Your task to perform on an android device: Open Maps and search for coffee Image 0: 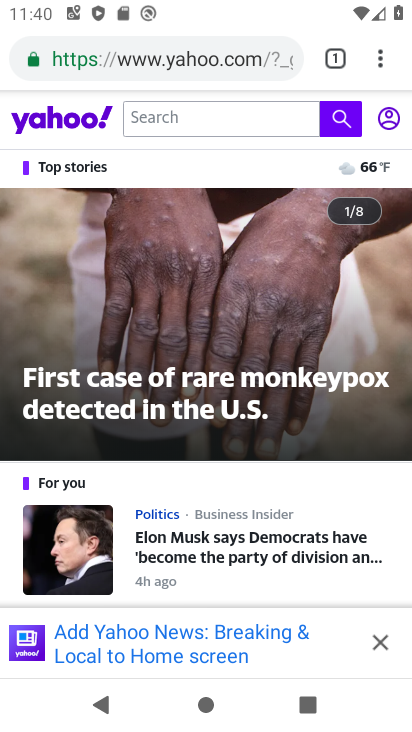
Step 0: press home button
Your task to perform on an android device: Open Maps and search for coffee Image 1: 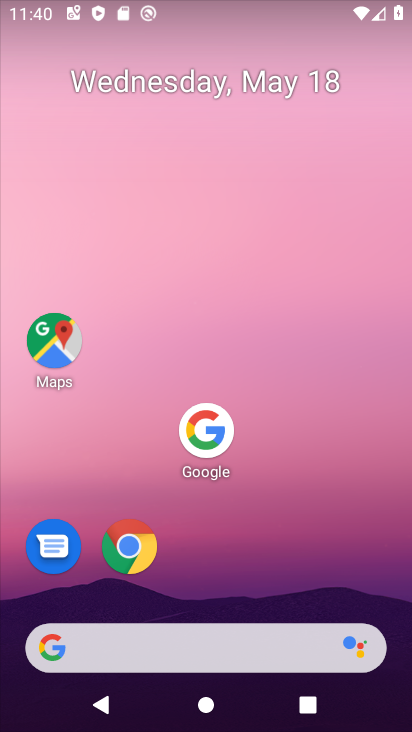
Step 1: click (50, 351)
Your task to perform on an android device: Open Maps and search for coffee Image 2: 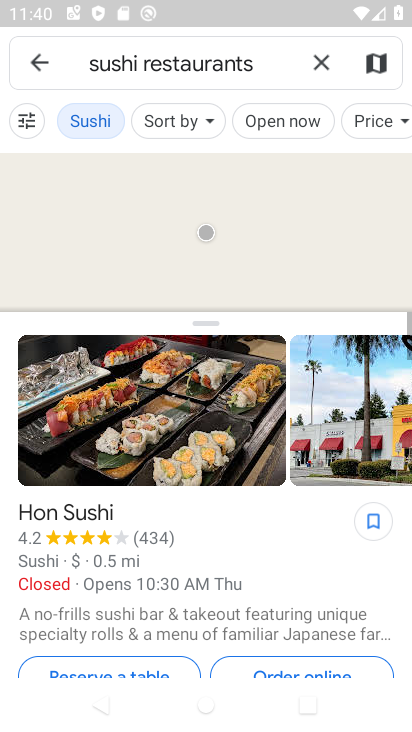
Step 2: click (318, 56)
Your task to perform on an android device: Open Maps and search for coffee Image 3: 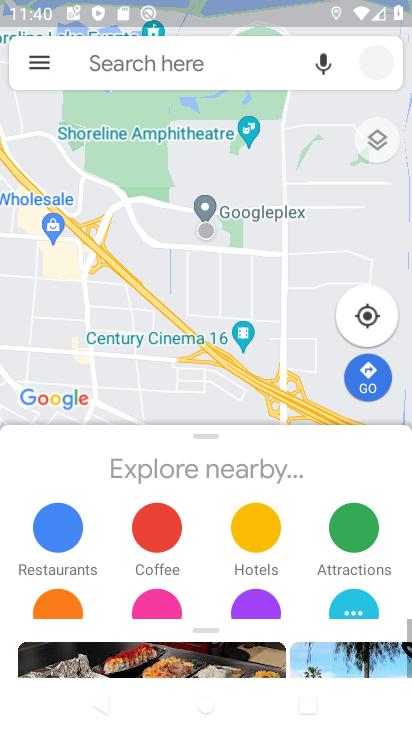
Step 3: click (134, 71)
Your task to perform on an android device: Open Maps and search for coffee Image 4: 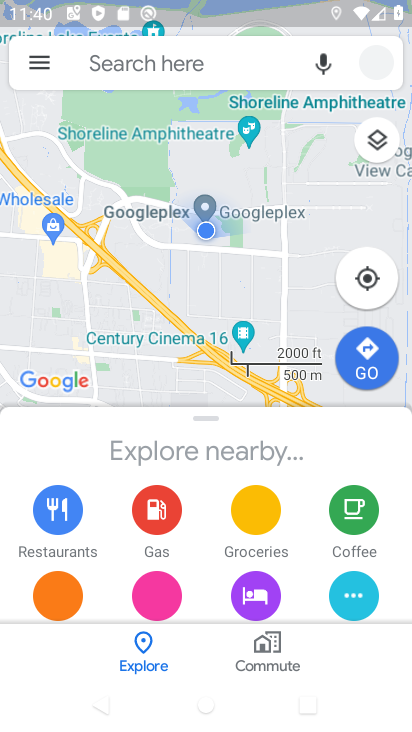
Step 4: click (190, 64)
Your task to perform on an android device: Open Maps and search for coffee Image 5: 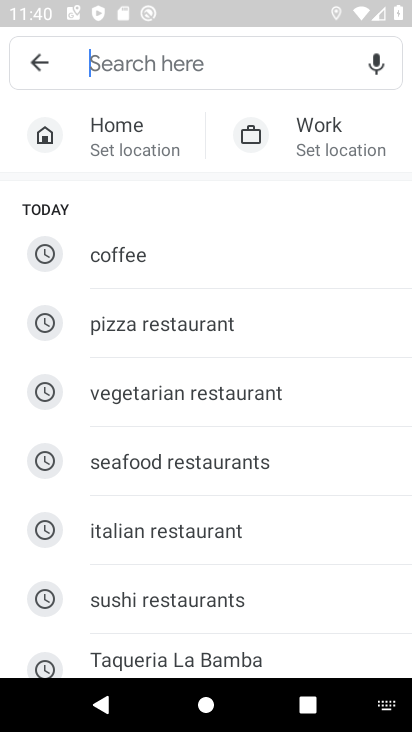
Step 5: click (136, 249)
Your task to perform on an android device: Open Maps and search for coffee Image 6: 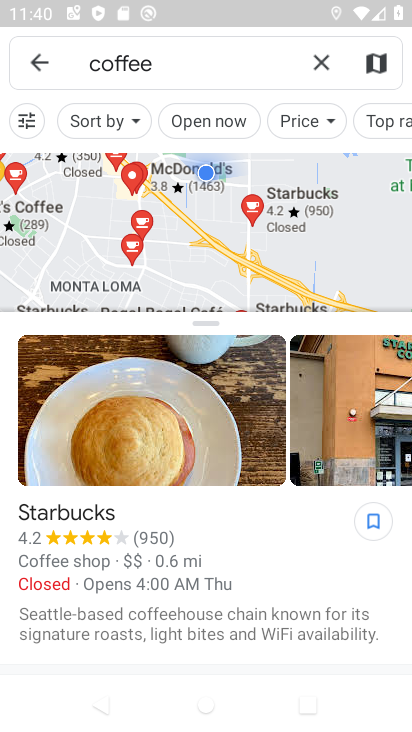
Step 6: task complete